Your task to perform on an android device: Open CNN.com Image 0: 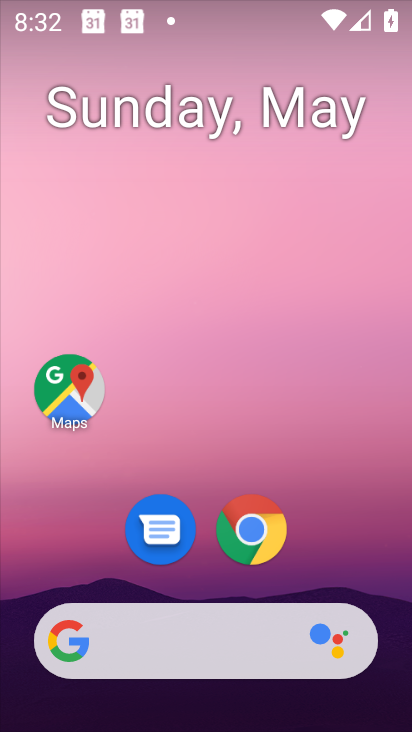
Step 0: click (195, 622)
Your task to perform on an android device: Open CNN.com Image 1: 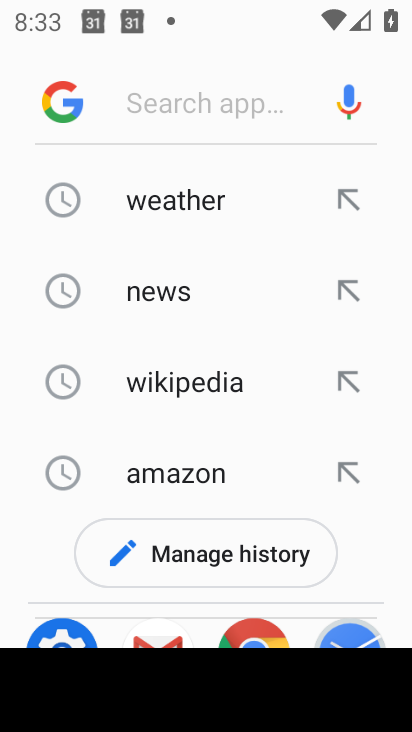
Step 1: task complete